Your task to perform on an android device: visit the assistant section in the google photos Image 0: 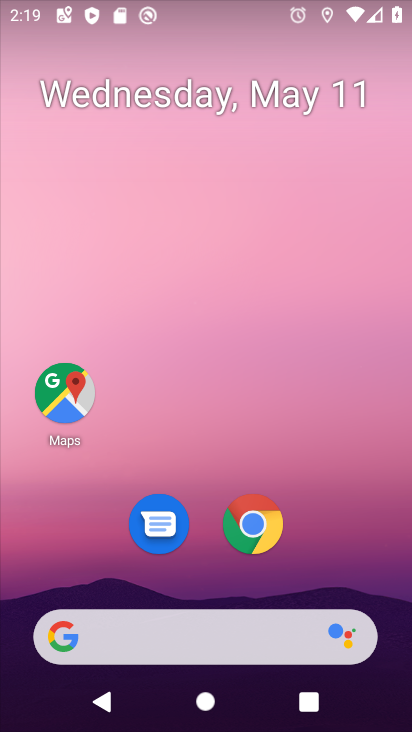
Step 0: drag from (313, 538) to (306, 56)
Your task to perform on an android device: visit the assistant section in the google photos Image 1: 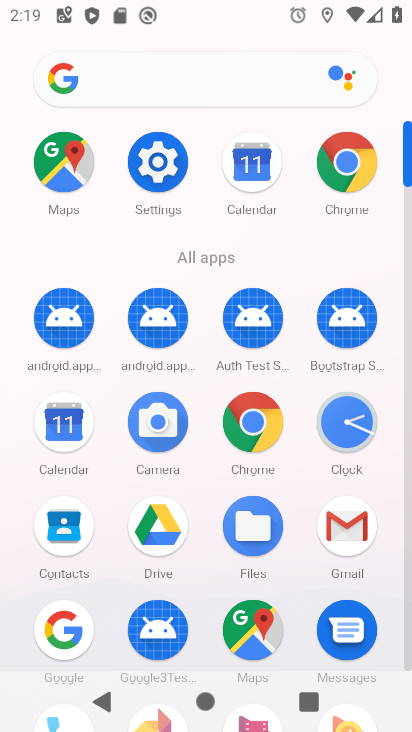
Step 1: drag from (205, 386) to (208, 85)
Your task to perform on an android device: visit the assistant section in the google photos Image 2: 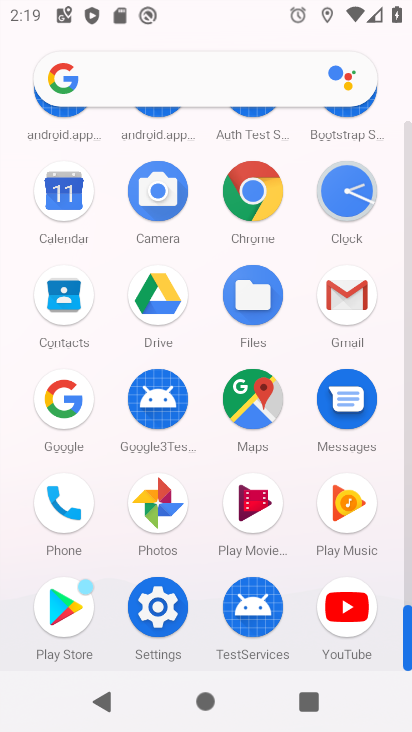
Step 2: click (169, 485)
Your task to perform on an android device: visit the assistant section in the google photos Image 3: 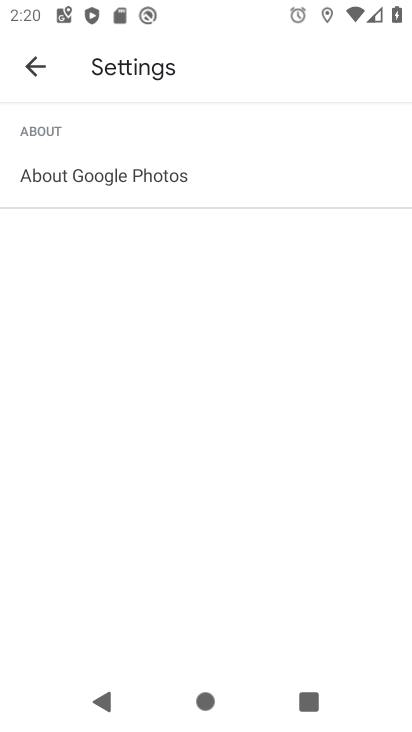
Step 3: click (34, 57)
Your task to perform on an android device: visit the assistant section in the google photos Image 4: 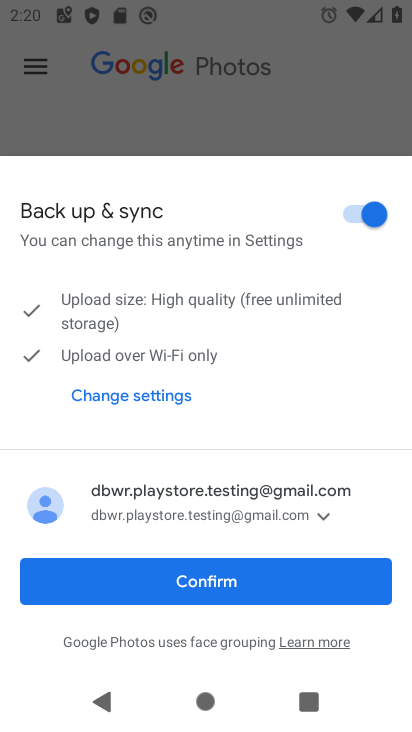
Step 4: click (287, 576)
Your task to perform on an android device: visit the assistant section in the google photos Image 5: 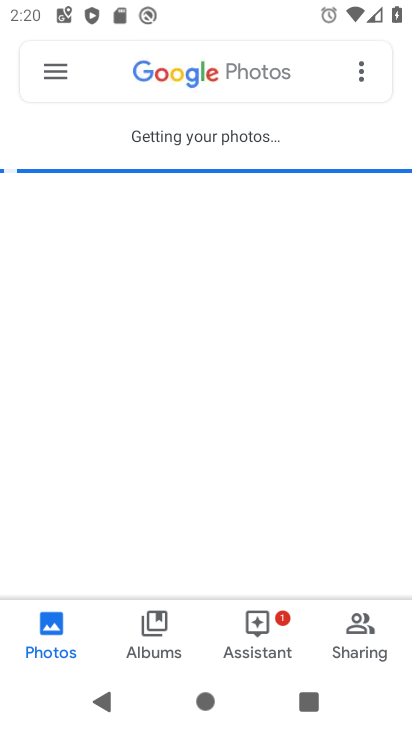
Step 5: click (245, 623)
Your task to perform on an android device: visit the assistant section in the google photos Image 6: 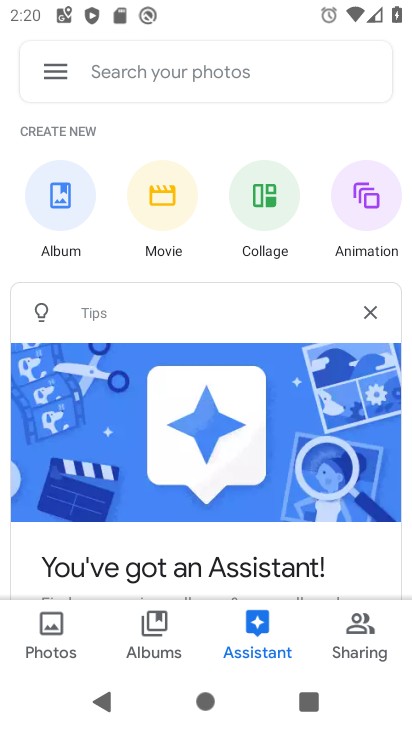
Step 6: task complete